Your task to perform on an android device: check the backup settings in the google photos Image 0: 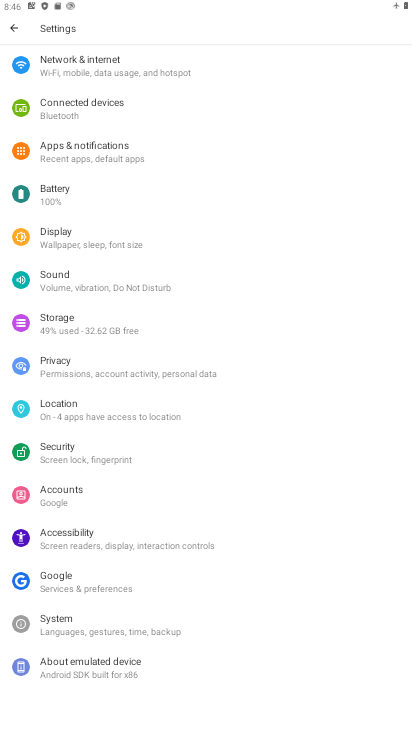
Step 0: press home button
Your task to perform on an android device: check the backup settings in the google photos Image 1: 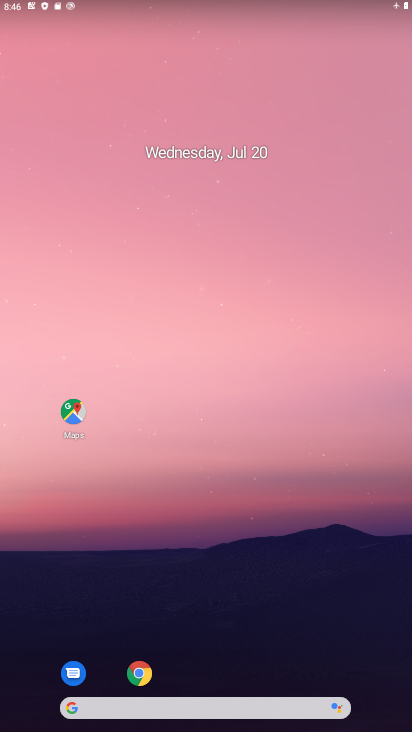
Step 1: drag from (213, 726) to (197, 196)
Your task to perform on an android device: check the backup settings in the google photos Image 2: 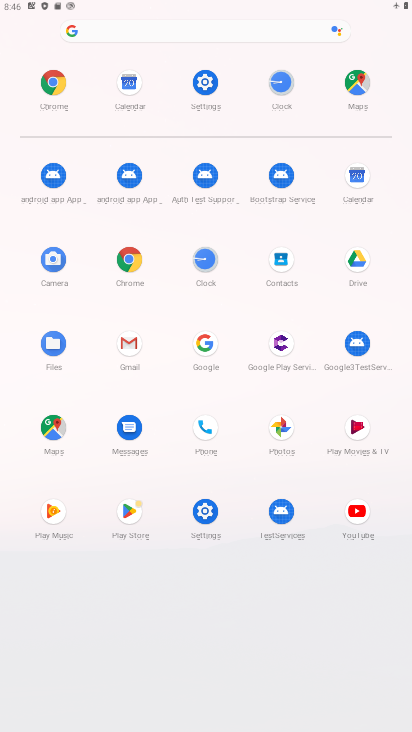
Step 2: click (286, 423)
Your task to perform on an android device: check the backup settings in the google photos Image 3: 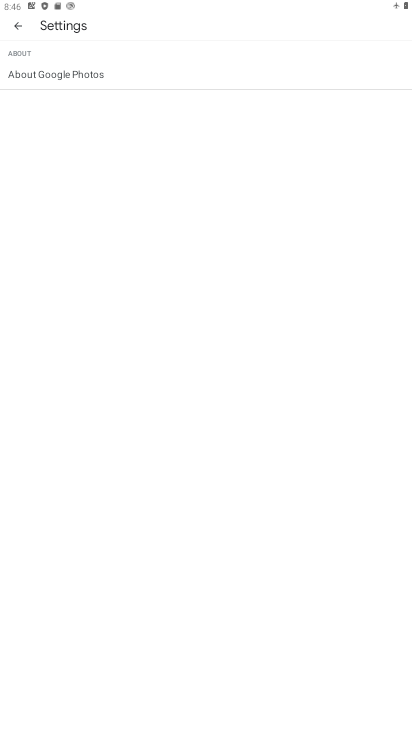
Step 3: click (17, 25)
Your task to perform on an android device: check the backup settings in the google photos Image 4: 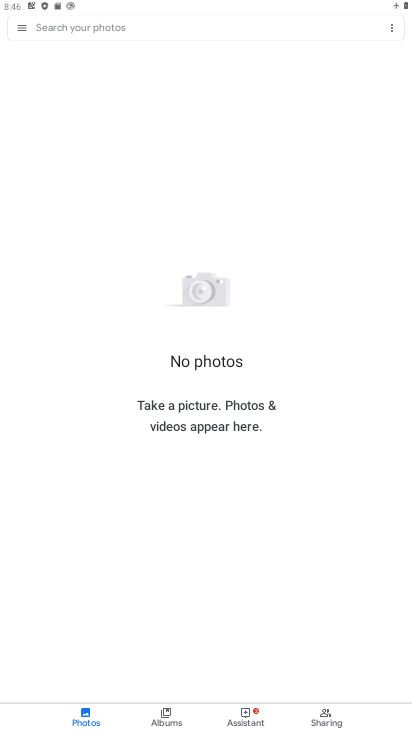
Step 4: click (21, 25)
Your task to perform on an android device: check the backup settings in the google photos Image 5: 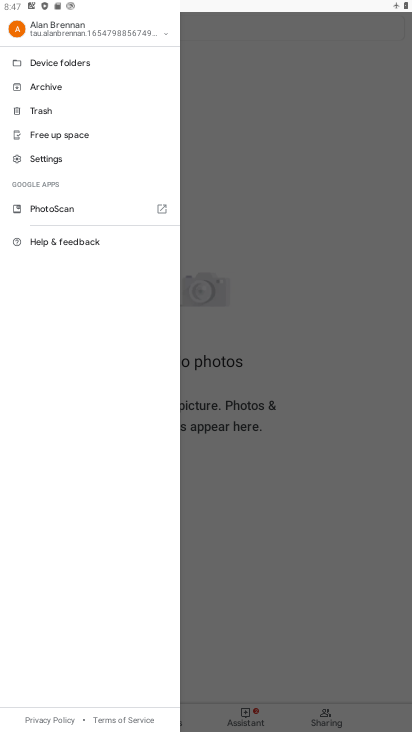
Step 5: click (44, 155)
Your task to perform on an android device: check the backup settings in the google photos Image 6: 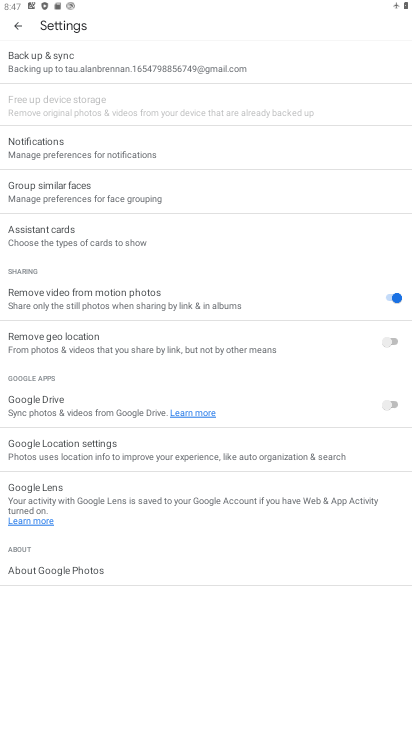
Step 6: click (55, 57)
Your task to perform on an android device: check the backup settings in the google photos Image 7: 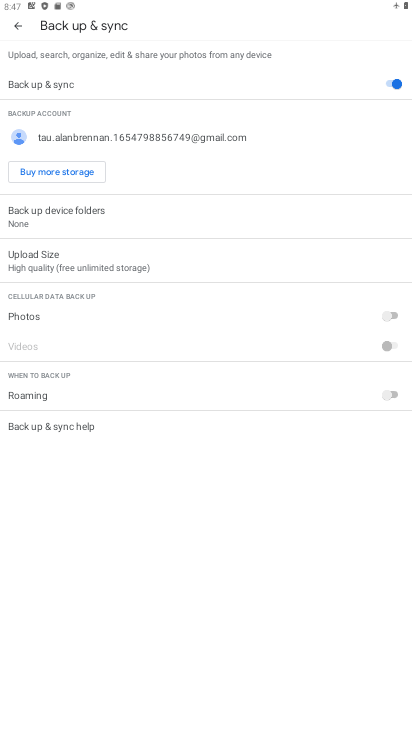
Step 7: task complete